Your task to perform on an android device: Go to network settings Image 0: 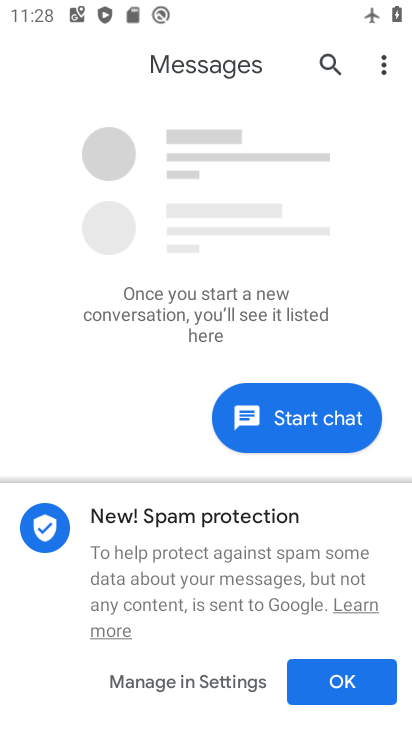
Step 0: press home button
Your task to perform on an android device: Go to network settings Image 1: 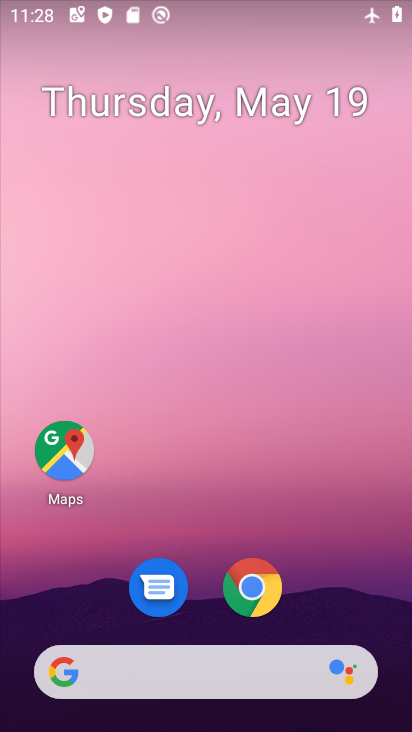
Step 1: drag from (184, 662) to (48, 7)
Your task to perform on an android device: Go to network settings Image 2: 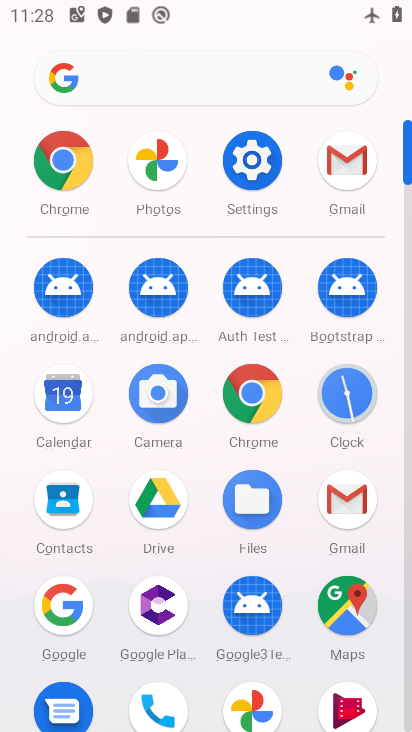
Step 2: click (239, 166)
Your task to perform on an android device: Go to network settings Image 3: 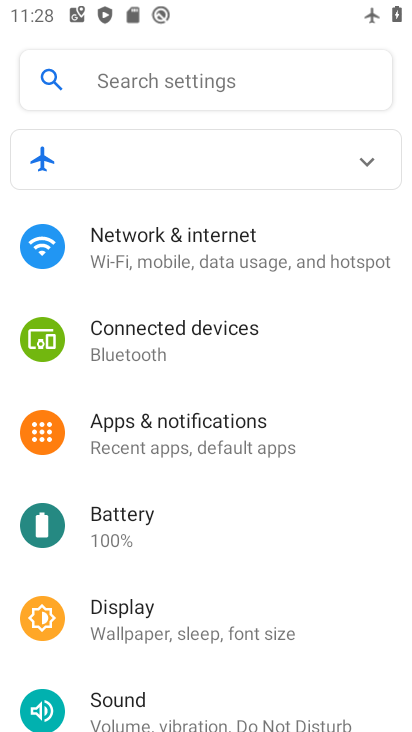
Step 3: click (109, 256)
Your task to perform on an android device: Go to network settings Image 4: 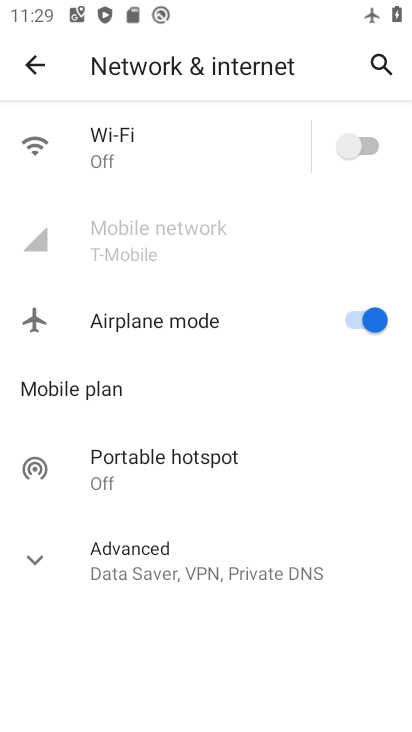
Step 4: task complete